Your task to perform on an android device: change timer sound Image 0: 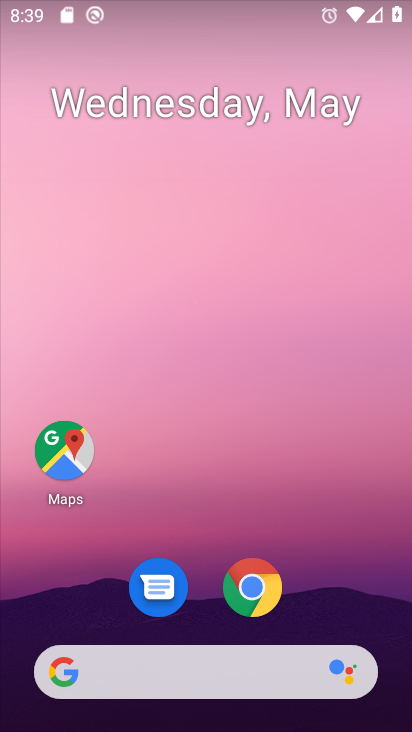
Step 0: drag from (204, 612) to (253, 18)
Your task to perform on an android device: change timer sound Image 1: 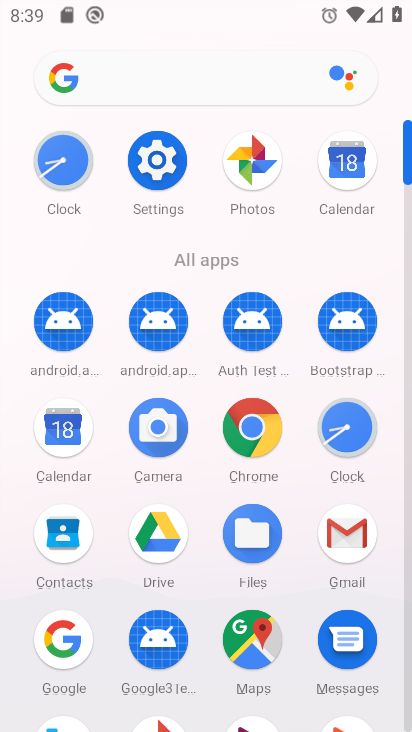
Step 1: click (343, 441)
Your task to perform on an android device: change timer sound Image 2: 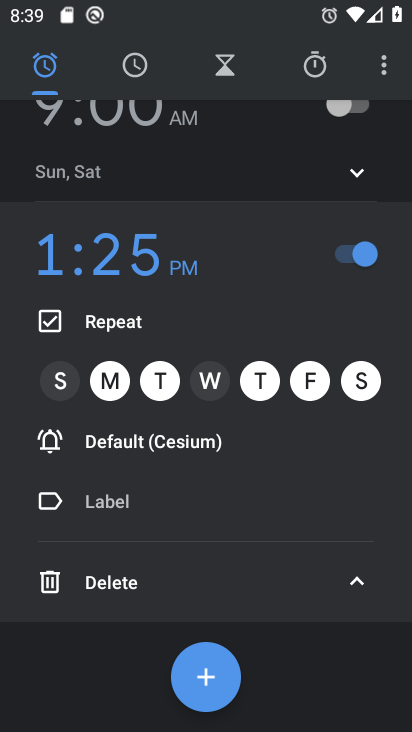
Step 2: click (379, 63)
Your task to perform on an android device: change timer sound Image 3: 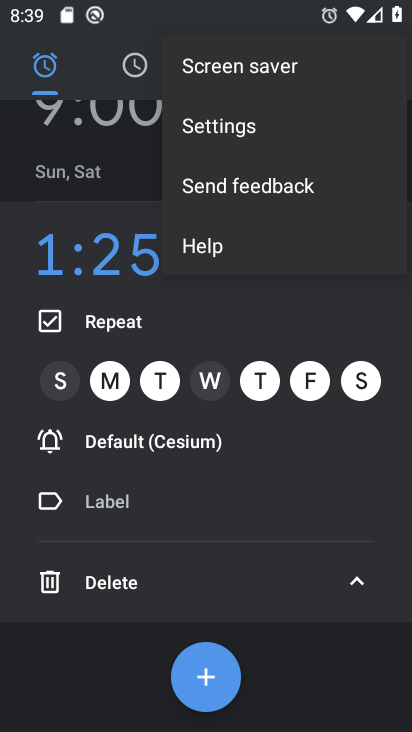
Step 3: click (223, 136)
Your task to perform on an android device: change timer sound Image 4: 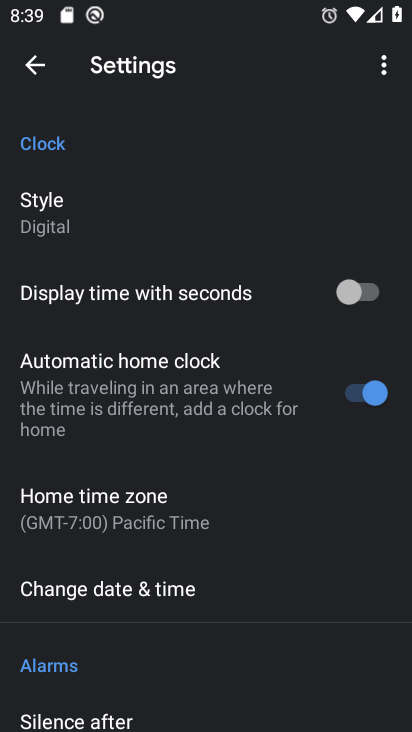
Step 4: drag from (165, 547) to (202, 349)
Your task to perform on an android device: change timer sound Image 5: 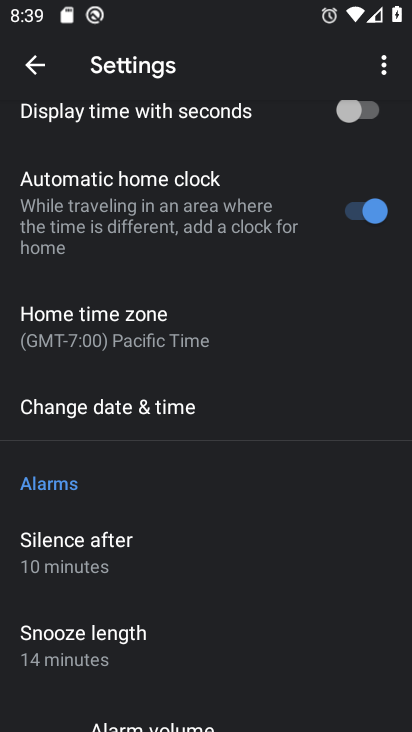
Step 5: drag from (106, 619) to (208, 350)
Your task to perform on an android device: change timer sound Image 6: 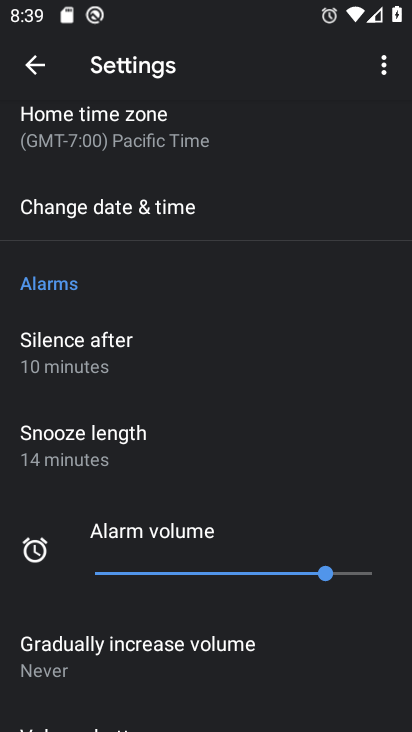
Step 6: drag from (138, 673) to (180, 345)
Your task to perform on an android device: change timer sound Image 7: 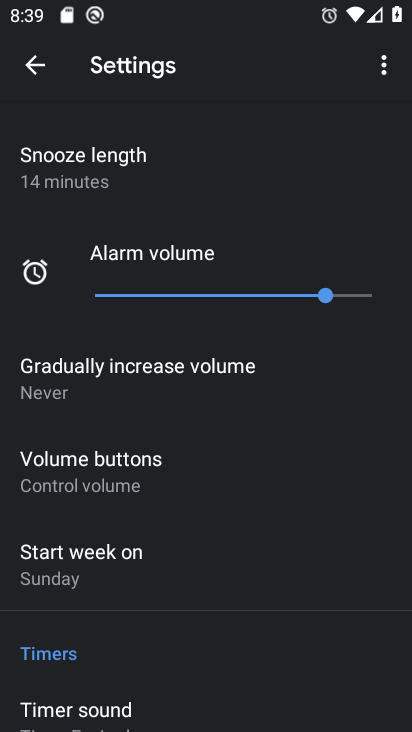
Step 7: drag from (88, 606) to (161, 347)
Your task to perform on an android device: change timer sound Image 8: 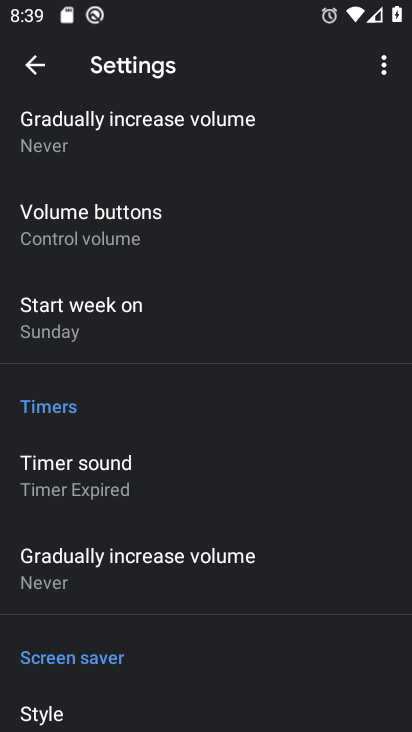
Step 8: click (130, 498)
Your task to perform on an android device: change timer sound Image 9: 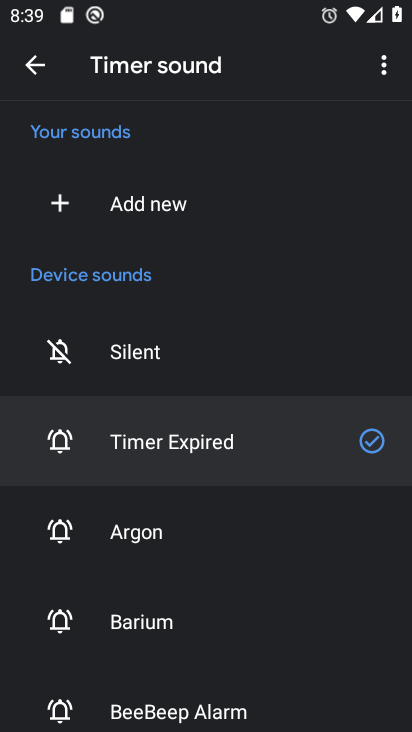
Step 9: click (149, 582)
Your task to perform on an android device: change timer sound Image 10: 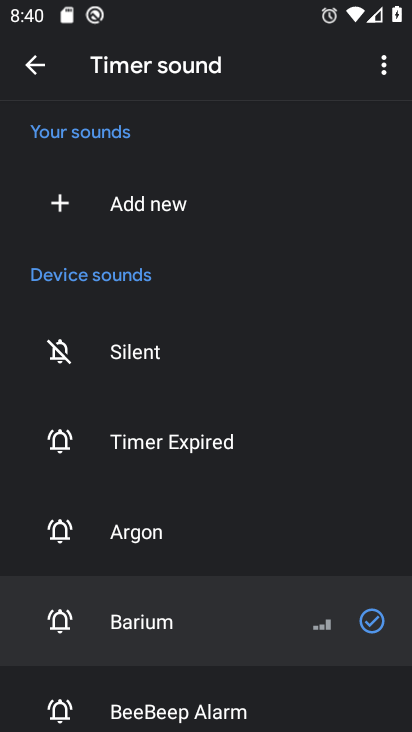
Step 10: task complete